Your task to perform on an android device: uninstall "ColorNote Notepad Notes" Image 0: 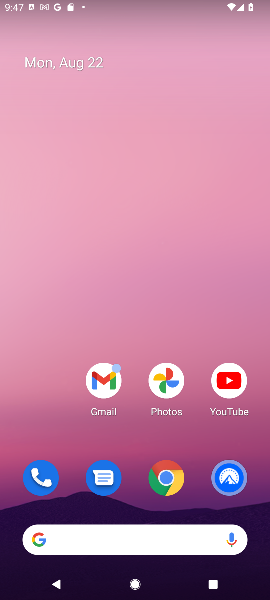
Step 0: drag from (140, 508) to (124, 21)
Your task to perform on an android device: uninstall "ColorNote Notepad Notes" Image 1: 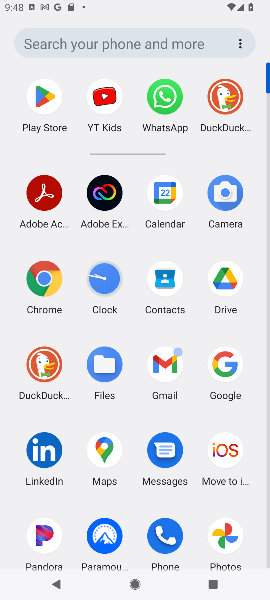
Step 1: task complete